Your task to perform on an android device: add a contact in the contacts app Image 0: 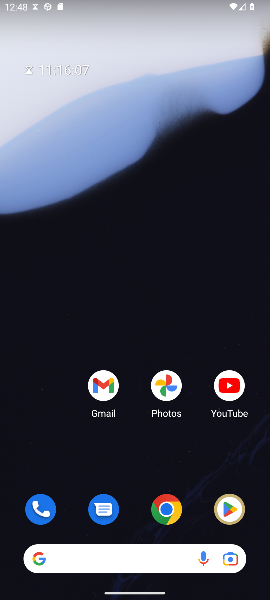
Step 0: press home button
Your task to perform on an android device: add a contact in the contacts app Image 1: 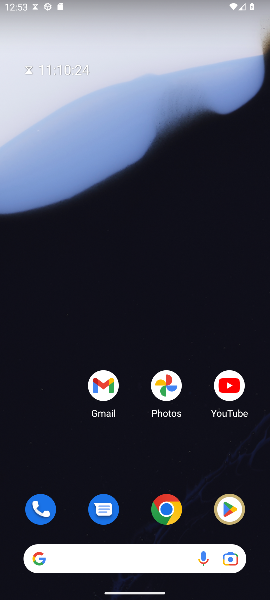
Step 1: drag from (175, 499) to (214, 118)
Your task to perform on an android device: add a contact in the contacts app Image 2: 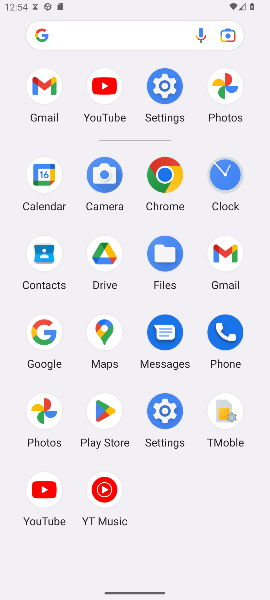
Step 2: click (50, 248)
Your task to perform on an android device: add a contact in the contacts app Image 3: 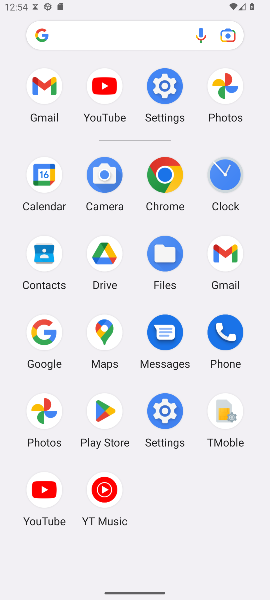
Step 3: click (46, 264)
Your task to perform on an android device: add a contact in the contacts app Image 4: 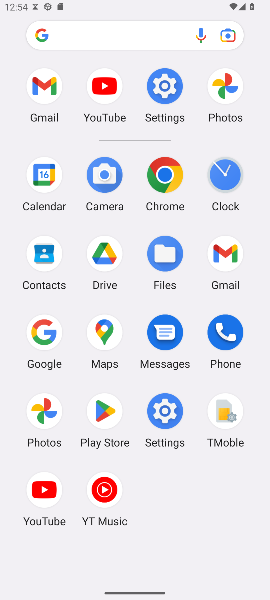
Step 4: task complete